Your task to perform on an android device: choose inbox layout in the gmail app Image 0: 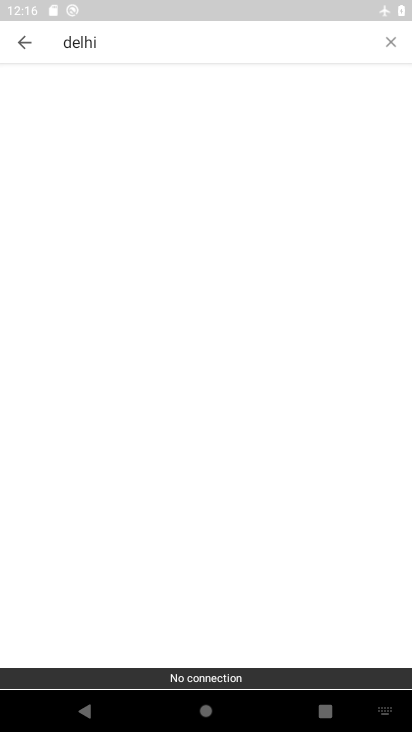
Step 0: press home button
Your task to perform on an android device: choose inbox layout in the gmail app Image 1: 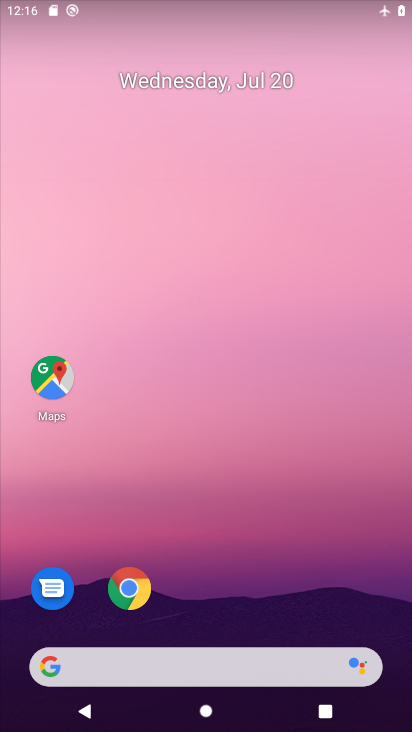
Step 1: drag from (224, 576) to (234, 6)
Your task to perform on an android device: choose inbox layout in the gmail app Image 2: 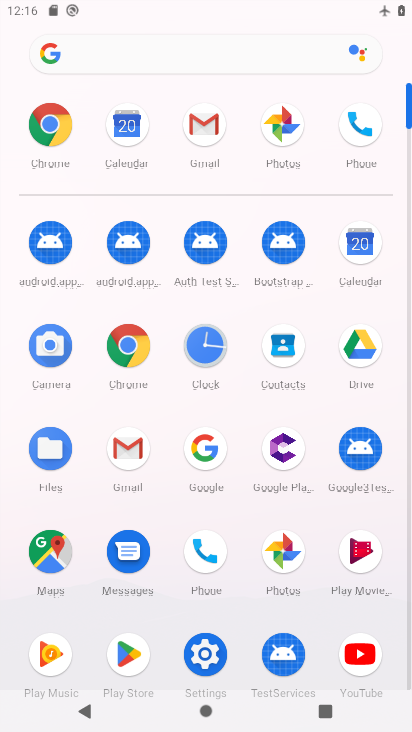
Step 2: click (126, 444)
Your task to perform on an android device: choose inbox layout in the gmail app Image 3: 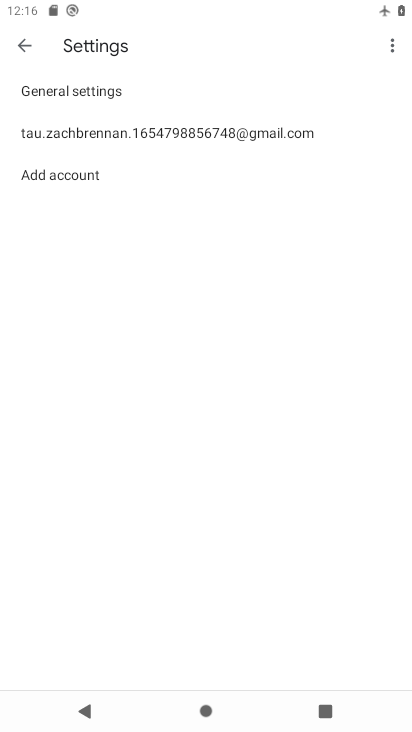
Step 3: click (79, 128)
Your task to perform on an android device: choose inbox layout in the gmail app Image 4: 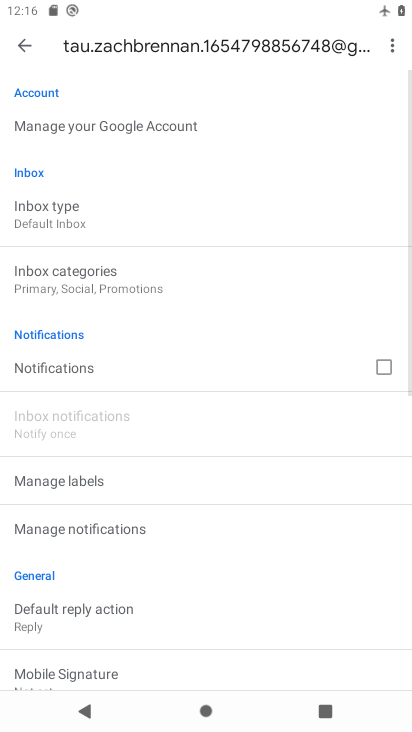
Step 4: click (85, 223)
Your task to perform on an android device: choose inbox layout in the gmail app Image 5: 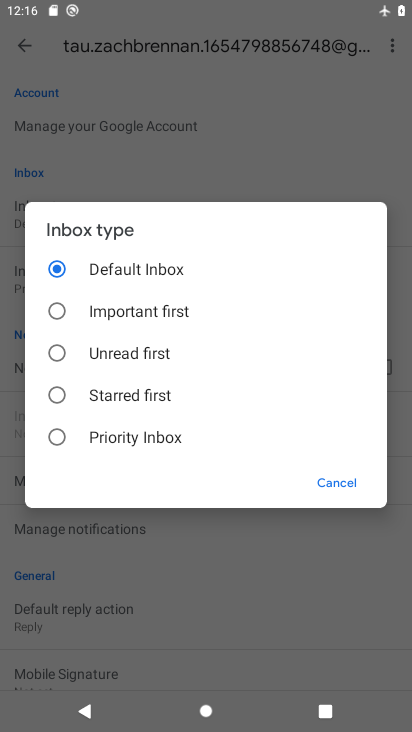
Step 5: click (126, 353)
Your task to perform on an android device: choose inbox layout in the gmail app Image 6: 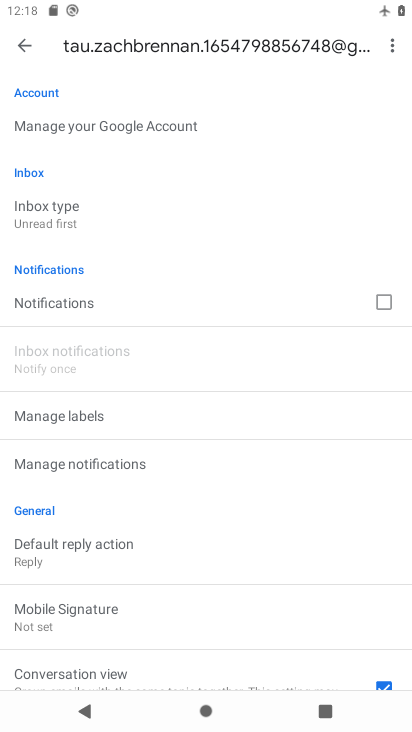
Step 6: task complete